Your task to perform on an android device: turn vacation reply on in the gmail app Image 0: 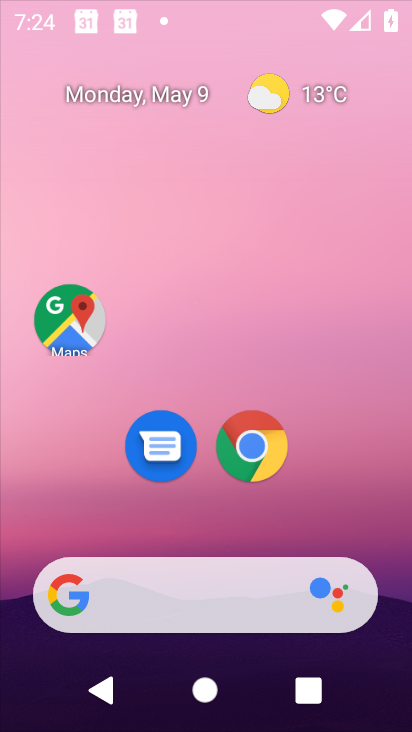
Step 0: drag from (335, 521) to (398, 95)
Your task to perform on an android device: turn vacation reply on in the gmail app Image 1: 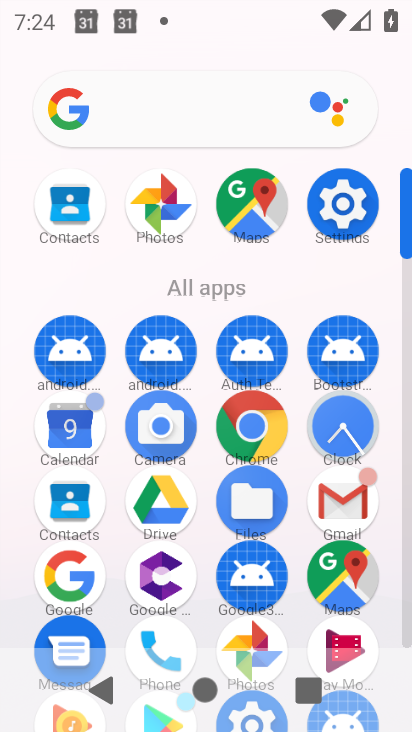
Step 1: click (343, 500)
Your task to perform on an android device: turn vacation reply on in the gmail app Image 2: 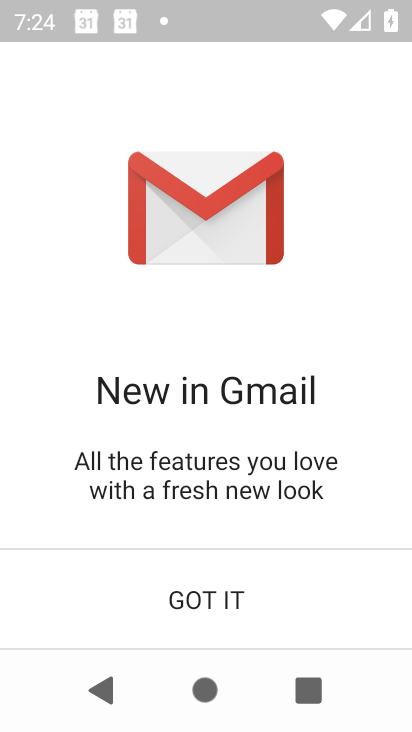
Step 2: click (233, 606)
Your task to perform on an android device: turn vacation reply on in the gmail app Image 3: 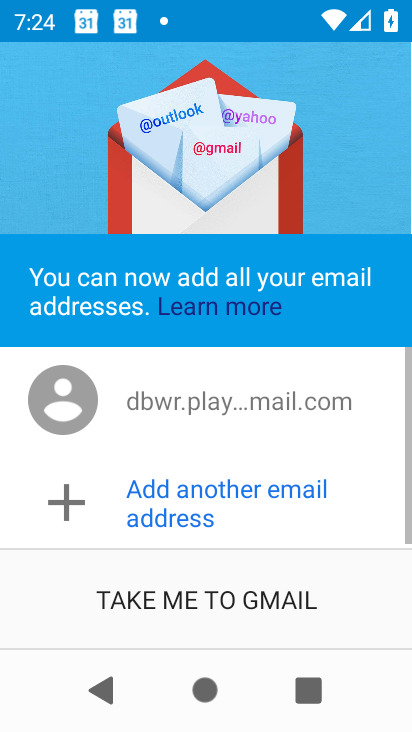
Step 3: click (229, 592)
Your task to perform on an android device: turn vacation reply on in the gmail app Image 4: 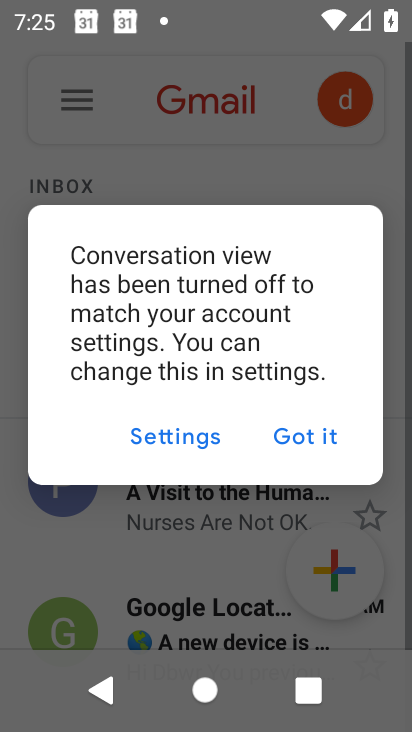
Step 4: click (310, 441)
Your task to perform on an android device: turn vacation reply on in the gmail app Image 5: 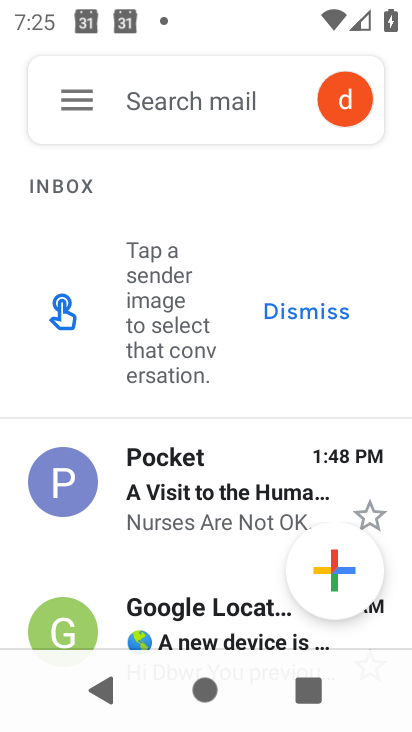
Step 5: click (65, 100)
Your task to perform on an android device: turn vacation reply on in the gmail app Image 6: 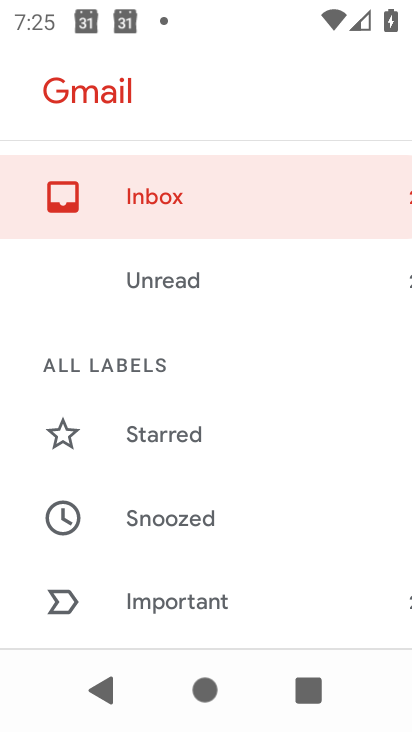
Step 6: drag from (220, 543) to (208, 150)
Your task to perform on an android device: turn vacation reply on in the gmail app Image 7: 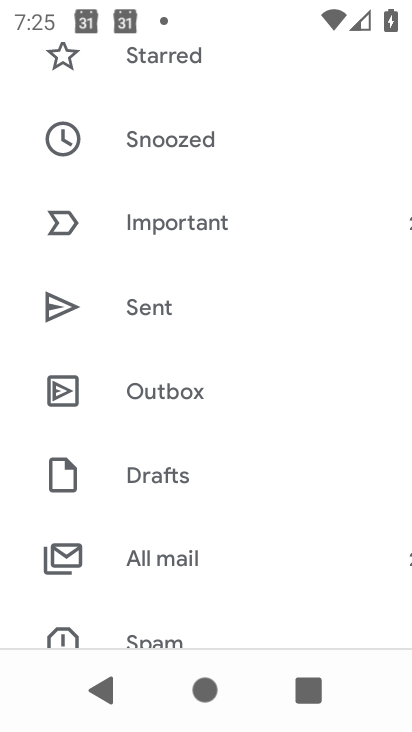
Step 7: drag from (234, 594) to (226, 122)
Your task to perform on an android device: turn vacation reply on in the gmail app Image 8: 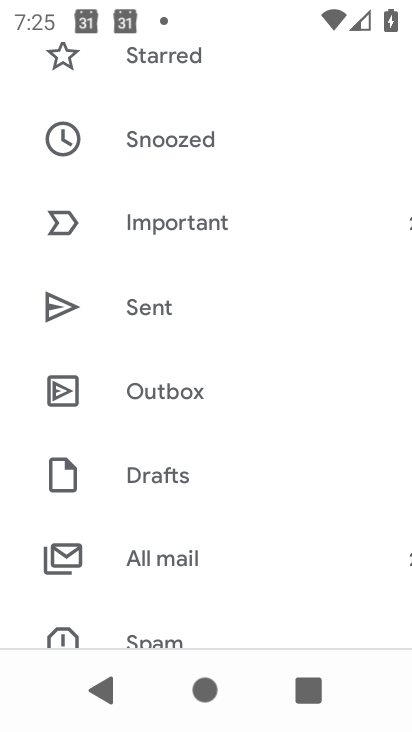
Step 8: drag from (158, 585) to (198, 200)
Your task to perform on an android device: turn vacation reply on in the gmail app Image 9: 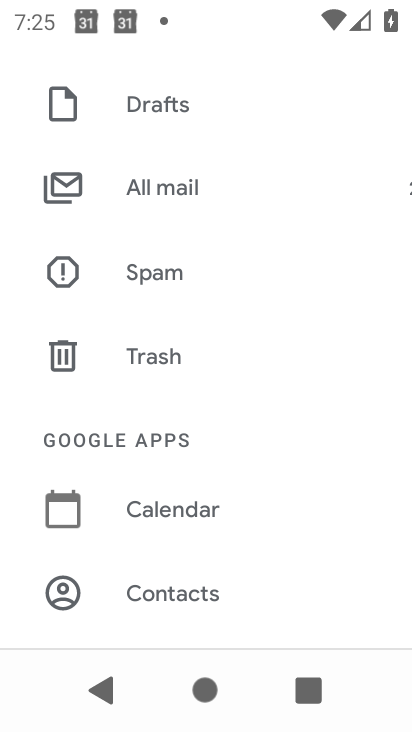
Step 9: drag from (193, 589) to (263, 146)
Your task to perform on an android device: turn vacation reply on in the gmail app Image 10: 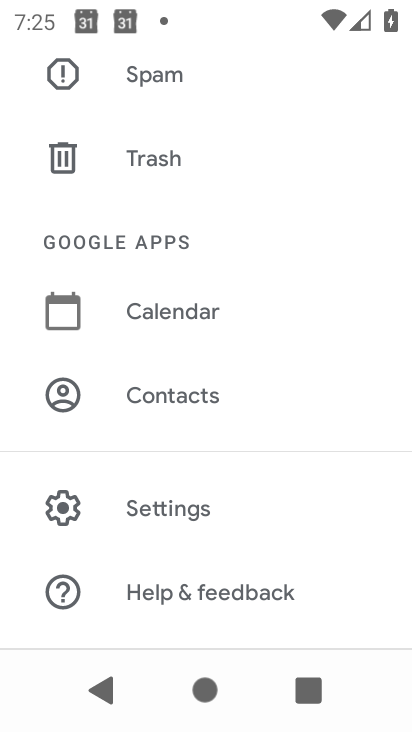
Step 10: click (177, 516)
Your task to perform on an android device: turn vacation reply on in the gmail app Image 11: 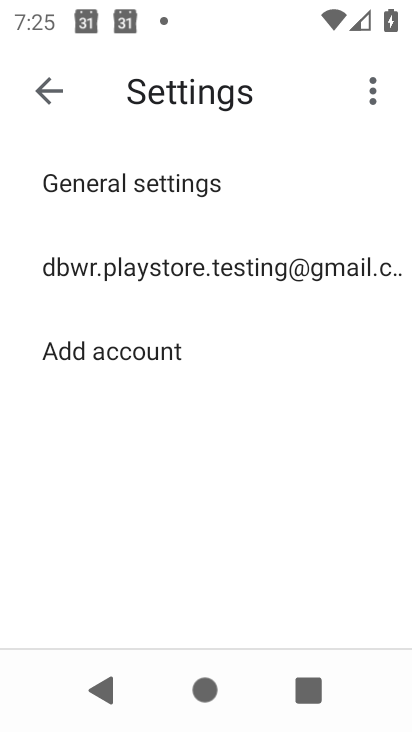
Step 11: click (194, 276)
Your task to perform on an android device: turn vacation reply on in the gmail app Image 12: 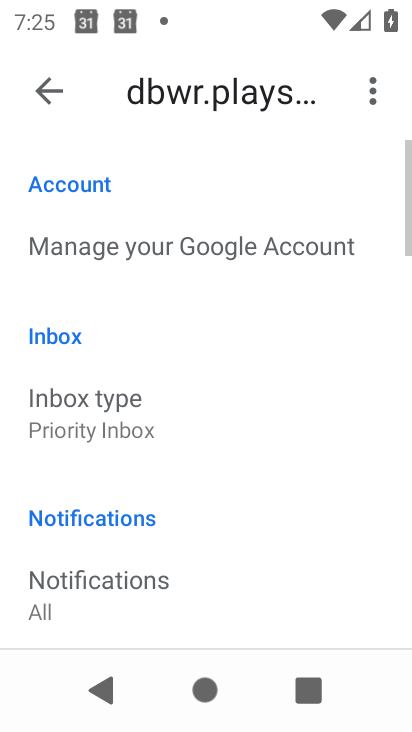
Step 12: drag from (188, 577) to (190, 109)
Your task to perform on an android device: turn vacation reply on in the gmail app Image 13: 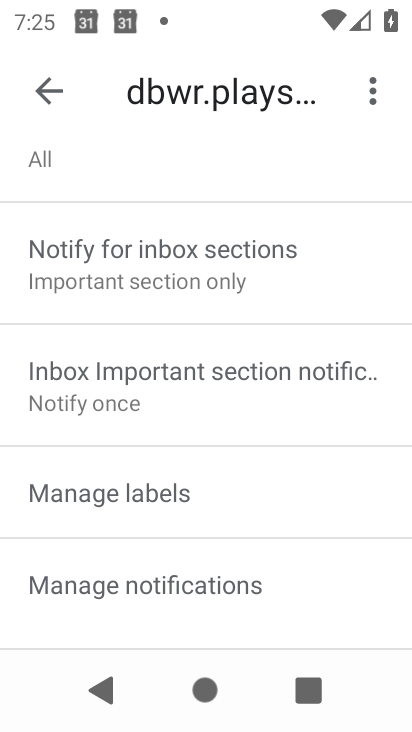
Step 13: drag from (212, 575) to (234, 166)
Your task to perform on an android device: turn vacation reply on in the gmail app Image 14: 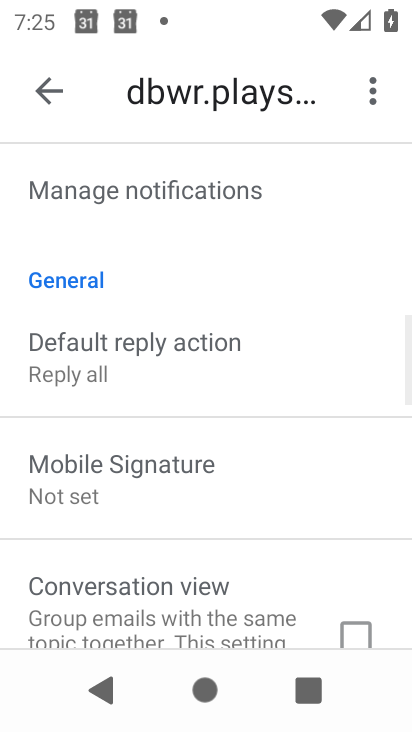
Step 14: drag from (237, 518) to (206, 132)
Your task to perform on an android device: turn vacation reply on in the gmail app Image 15: 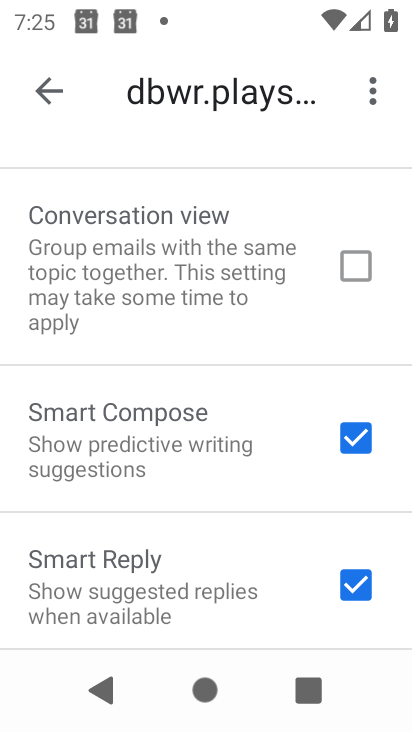
Step 15: drag from (211, 600) to (227, 215)
Your task to perform on an android device: turn vacation reply on in the gmail app Image 16: 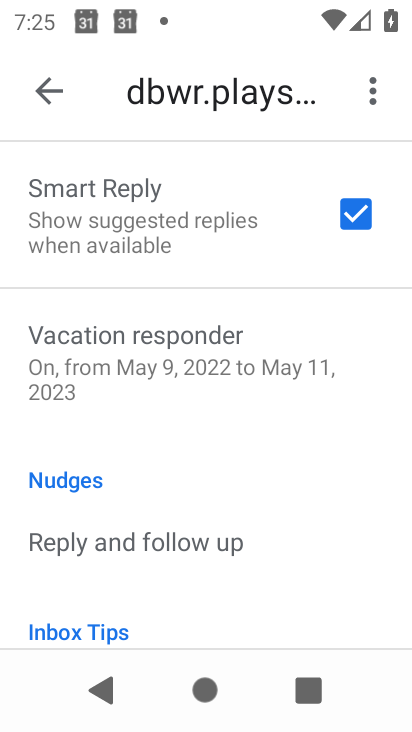
Step 16: click (132, 368)
Your task to perform on an android device: turn vacation reply on in the gmail app Image 17: 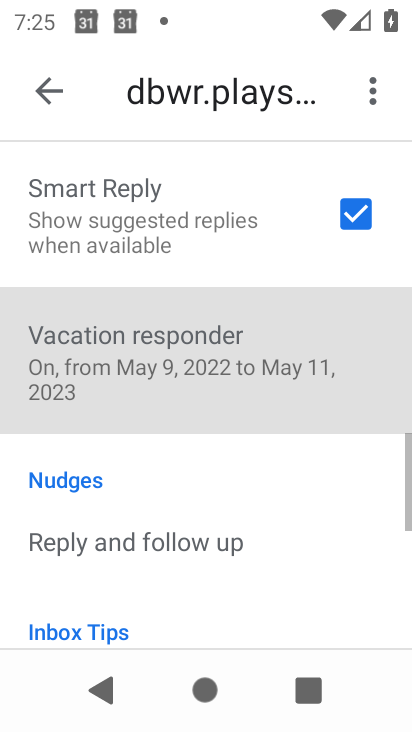
Step 17: click (132, 368)
Your task to perform on an android device: turn vacation reply on in the gmail app Image 18: 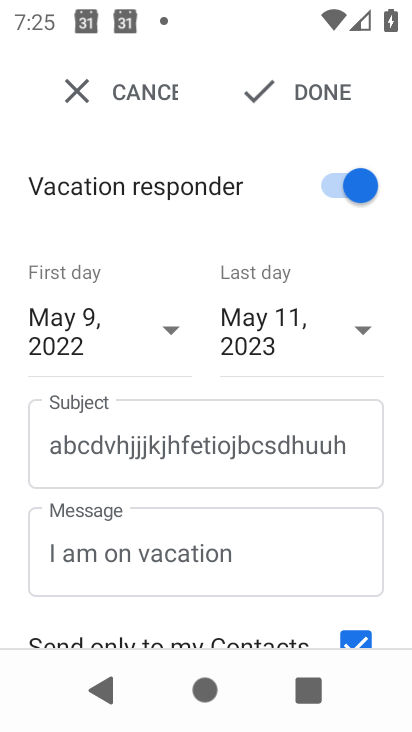
Step 18: click (311, 107)
Your task to perform on an android device: turn vacation reply on in the gmail app Image 19: 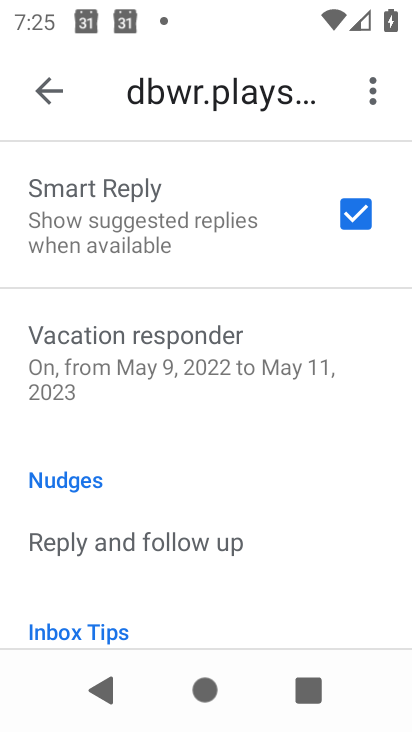
Step 19: task complete